Your task to perform on an android device: allow cookies in the chrome app Image 0: 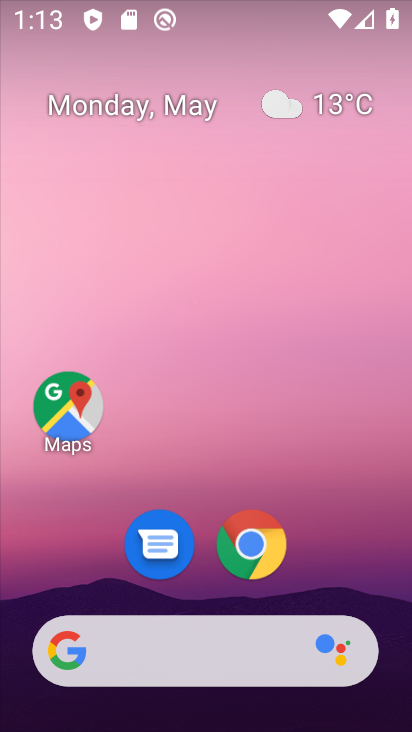
Step 0: click (254, 549)
Your task to perform on an android device: allow cookies in the chrome app Image 1: 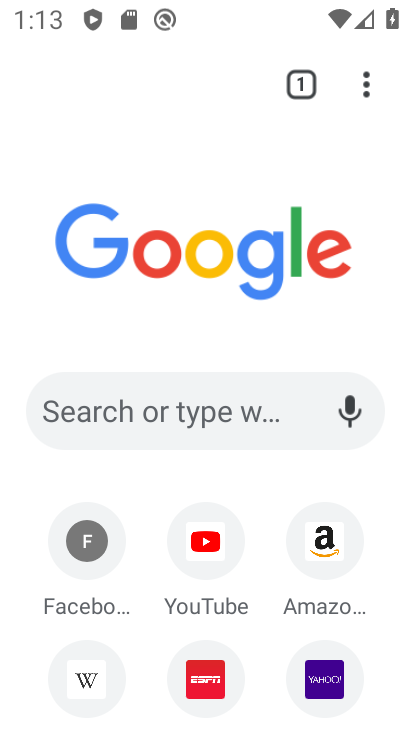
Step 1: click (363, 88)
Your task to perform on an android device: allow cookies in the chrome app Image 2: 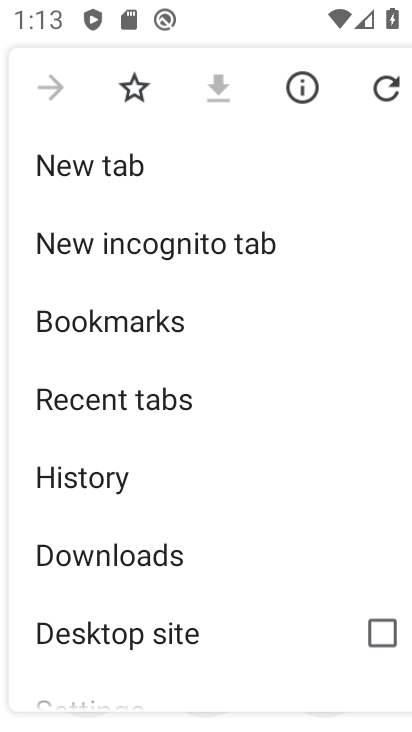
Step 2: drag from (229, 634) to (299, 181)
Your task to perform on an android device: allow cookies in the chrome app Image 3: 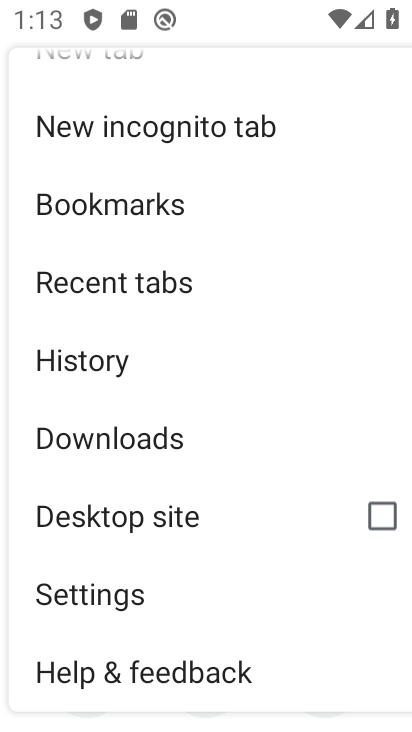
Step 3: click (100, 595)
Your task to perform on an android device: allow cookies in the chrome app Image 4: 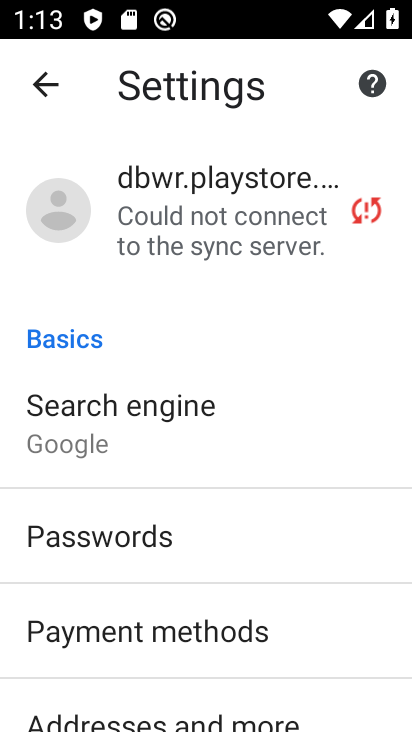
Step 4: drag from (310, 682) to (307, 301)
Your task to perform on an android device: allow cookies in the chrome app Image 5: 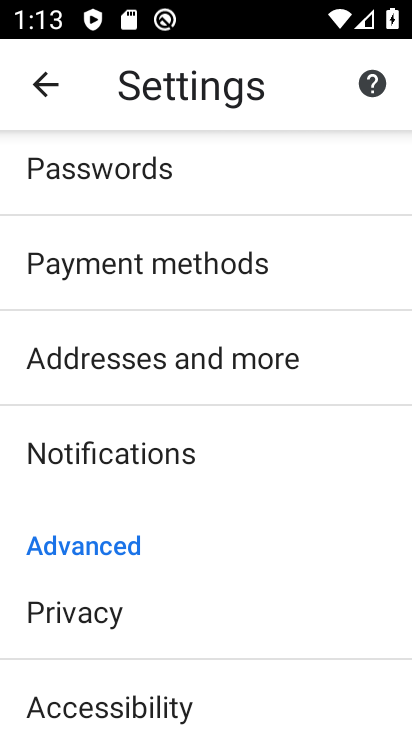
Step 5: drag from (217, 681) to (313, 315)
Your task to perform on an android device: allow cookies in the chrome app Image 6: 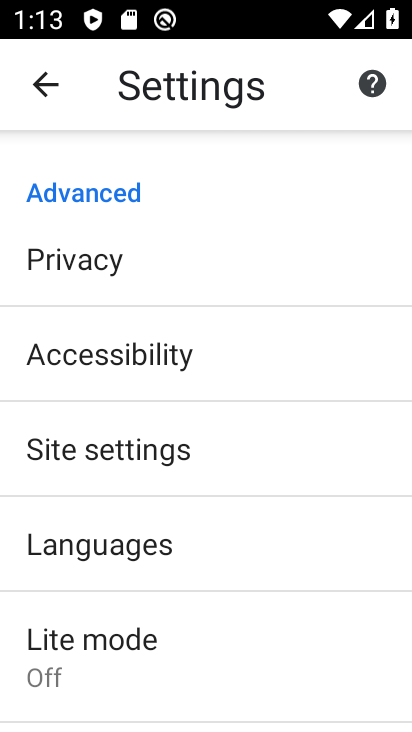
Step 6: click (65, 448)
Your task to perform on an android device: allow cookies in the chrome app Image 7: 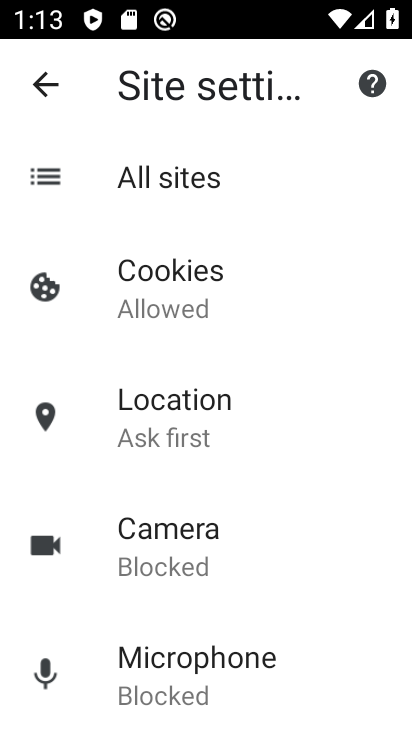
Step 7: click (181, 262)
Your task to perform on an android device: allow cookies in the chrome app Image 8: 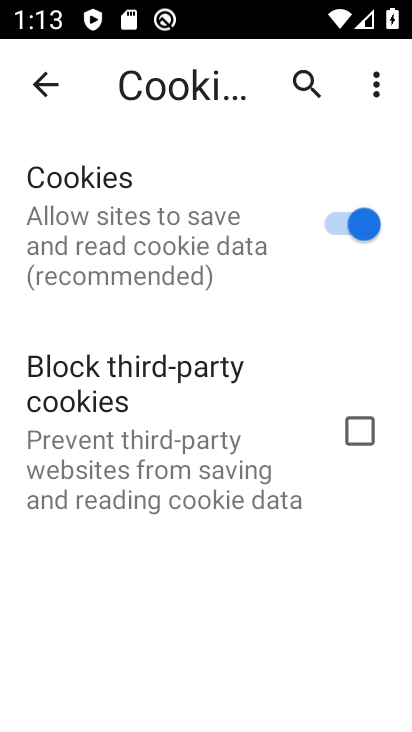
Step 8: task complete